Your task to perform on an android device: delete the emails in spam in the gmail app Image 0: 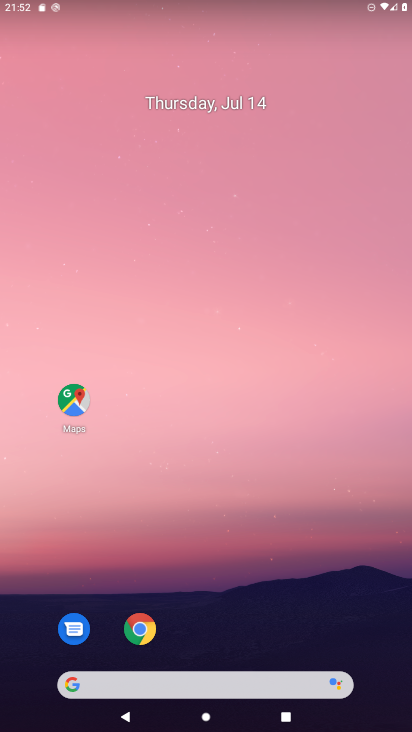
Step 0: drag from (267, 603) to (264, 422)
Your task to perform on an android device: delete the emails in spam in the gmail app Image 1: 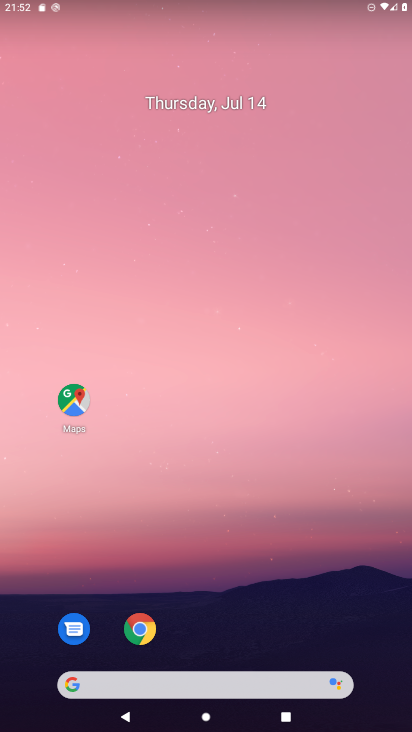
Step 1: drag from (225, 582) to (220, 145)
Your task to perform on an android device: delete the emails in spam in the gmail app Image 2: 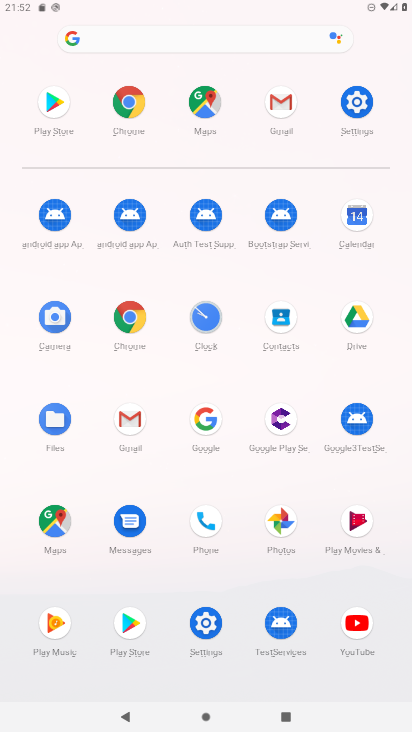
Step 2: click (122, 412)
Your task to perform on an android device: delete the emails in spam in the gmail app Image 3: 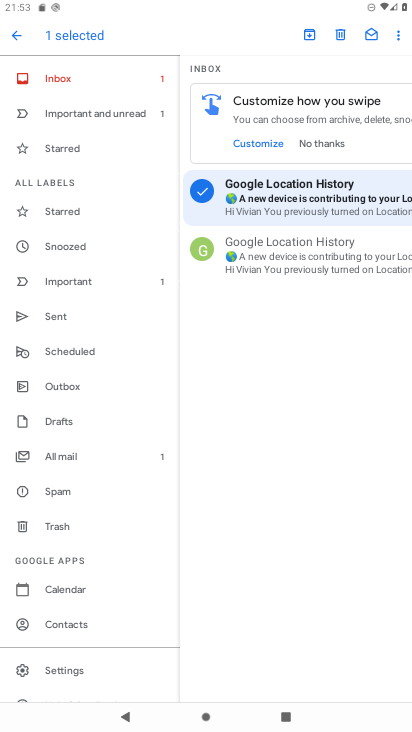
Step 3: click (52, 492)
Your task to perform on an android device: delete the emails in spam in the gmail app Image 4: 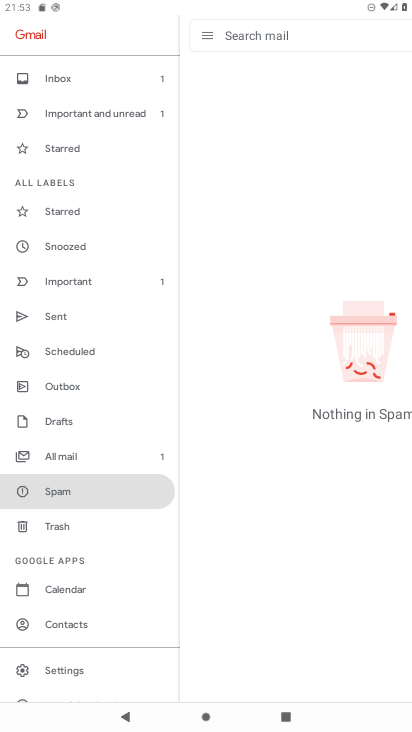
Step 4: task complete